Your task to perform on an android device: Clear the cart on newegg. Image 0: 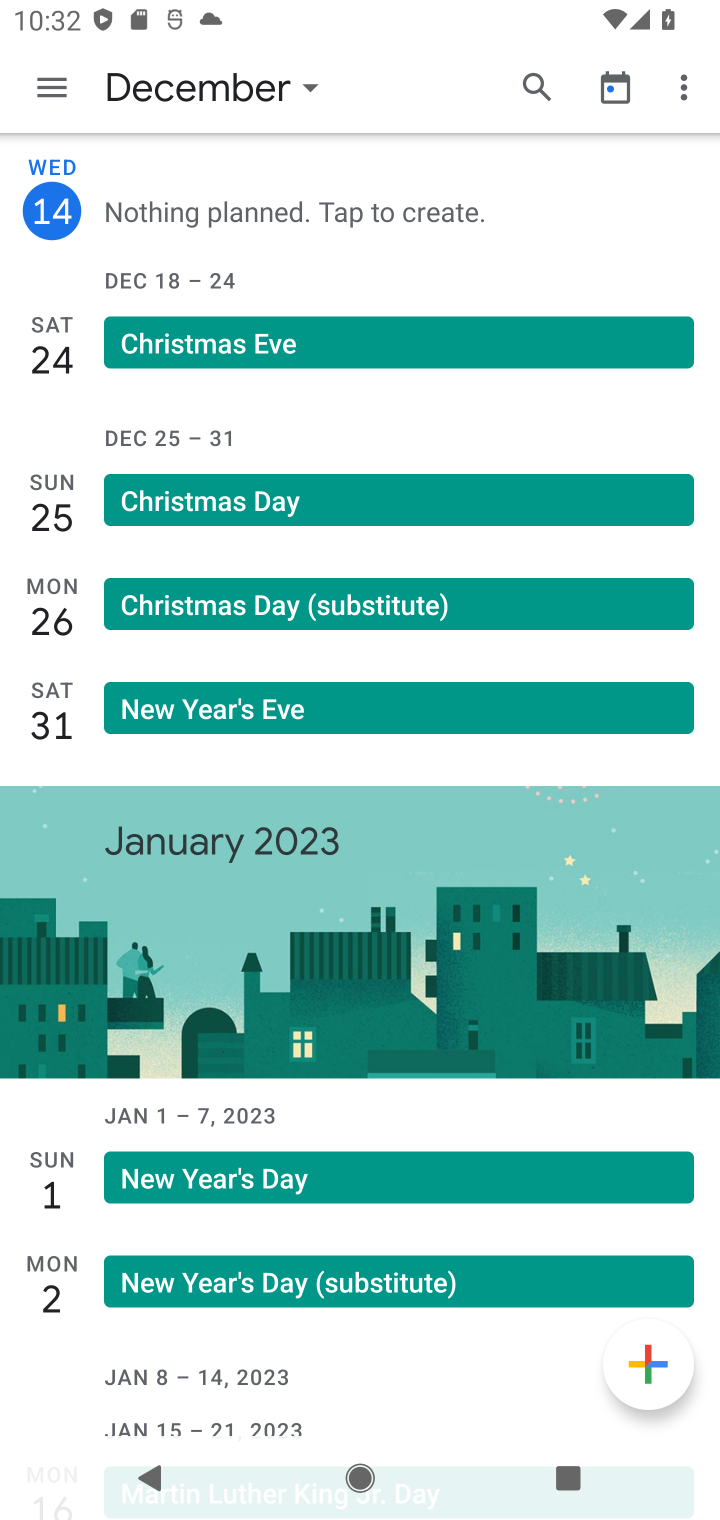
Step 0: press home button
Your task to perform on an android device: Clear the cart on newegg. Image 1: 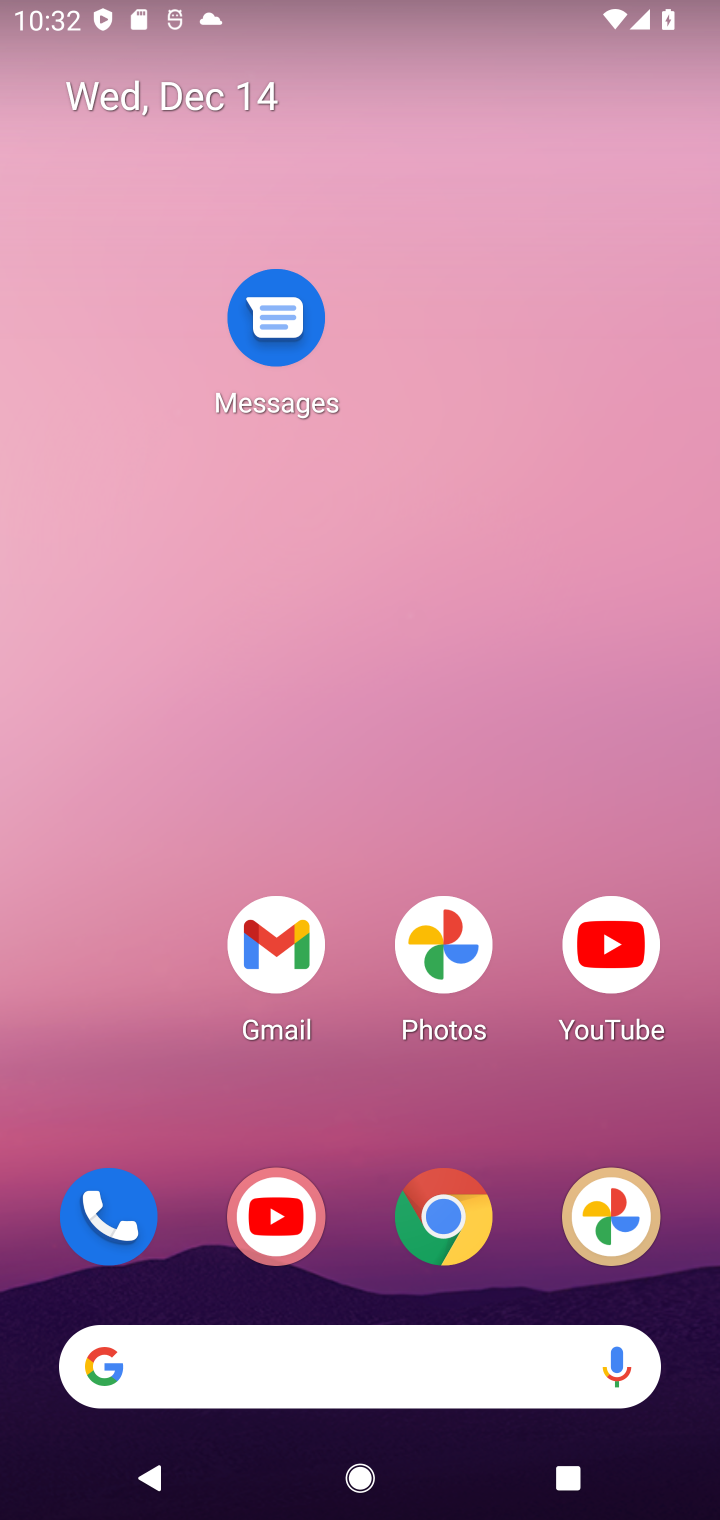
Step 1: drag from (271, 1015) to (176, 477)
Your task to perform on an android device: Clear the cart on newegg. Image 2: 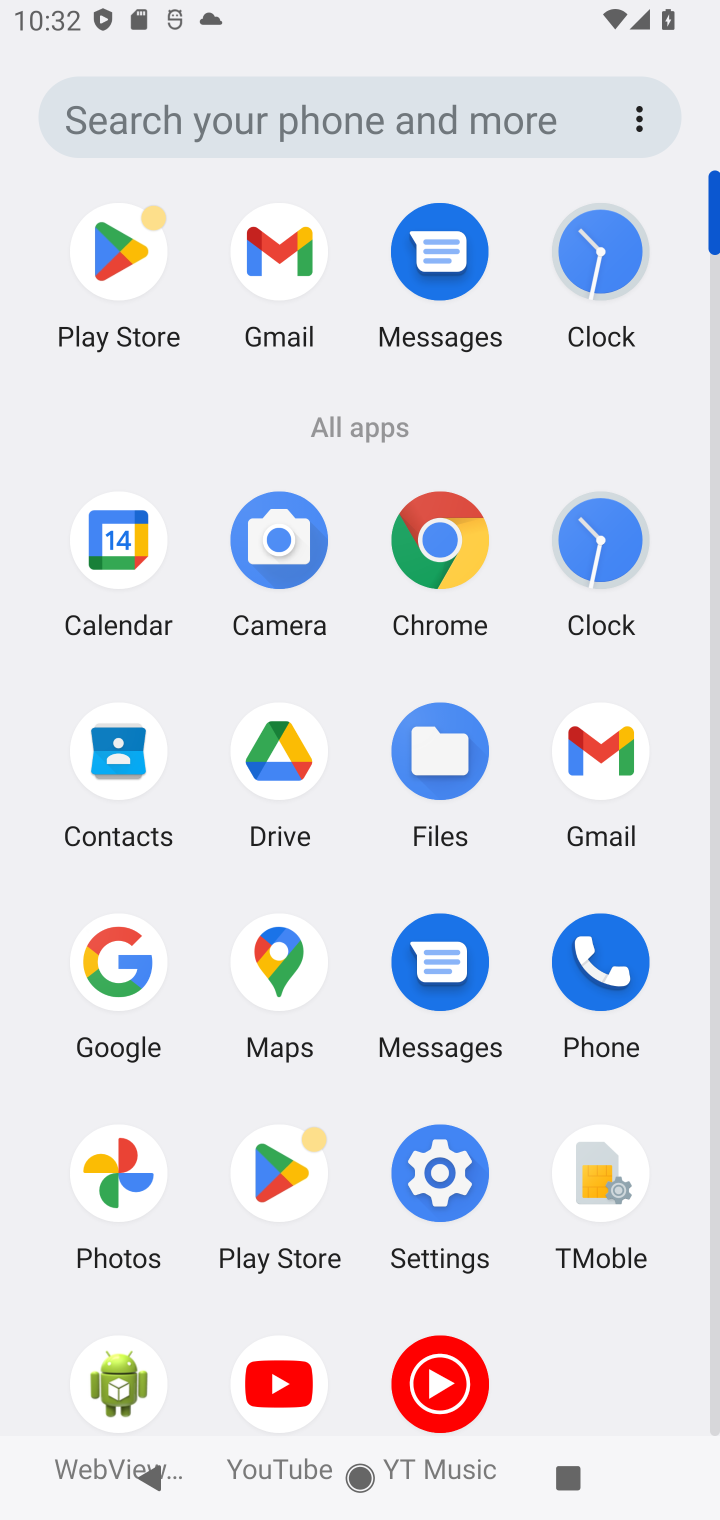
Step 2: click (108, 974)
Your task to perform on an android device: Clear the cart on newegg. Image 3: 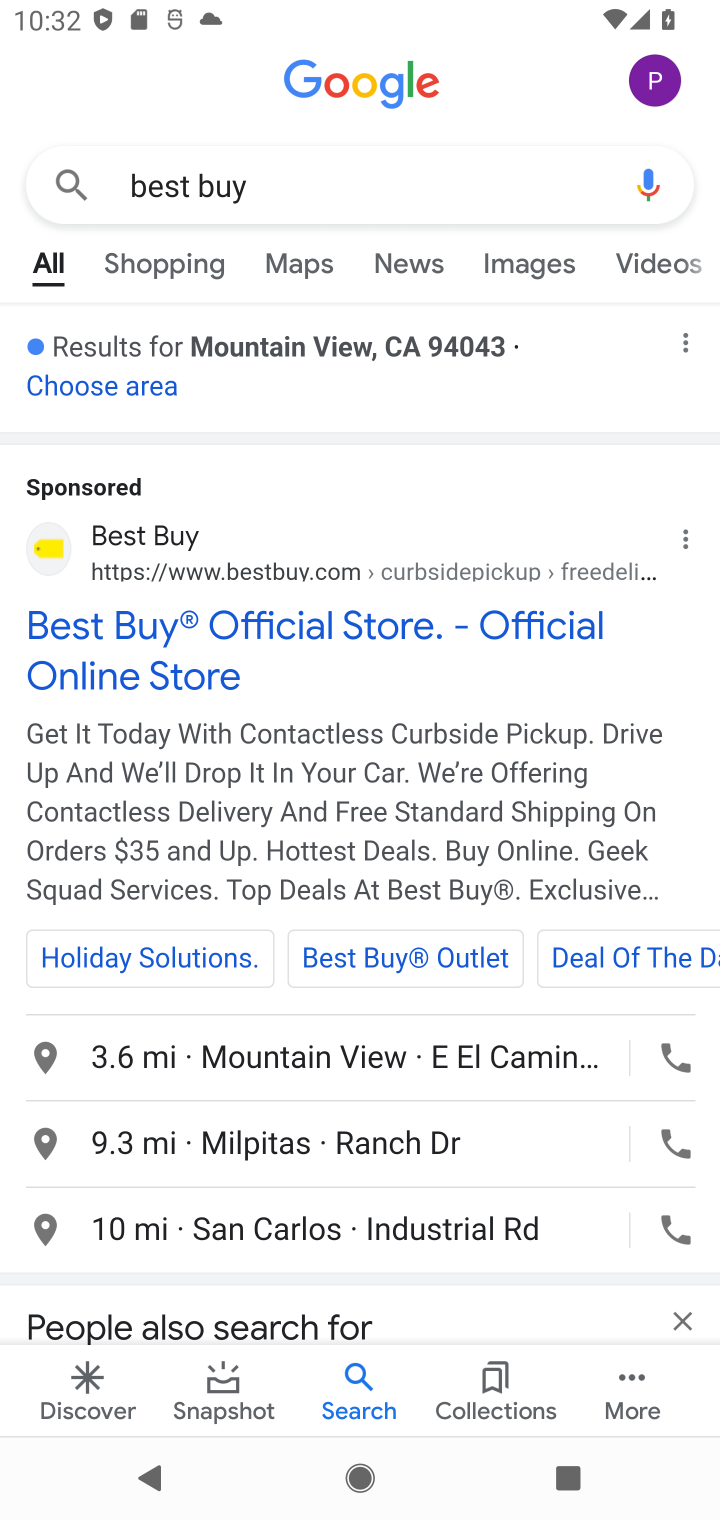
Step 3: click (182, 195)
Your task to perform on an android device: Clear the cart on newegg. Image 4: 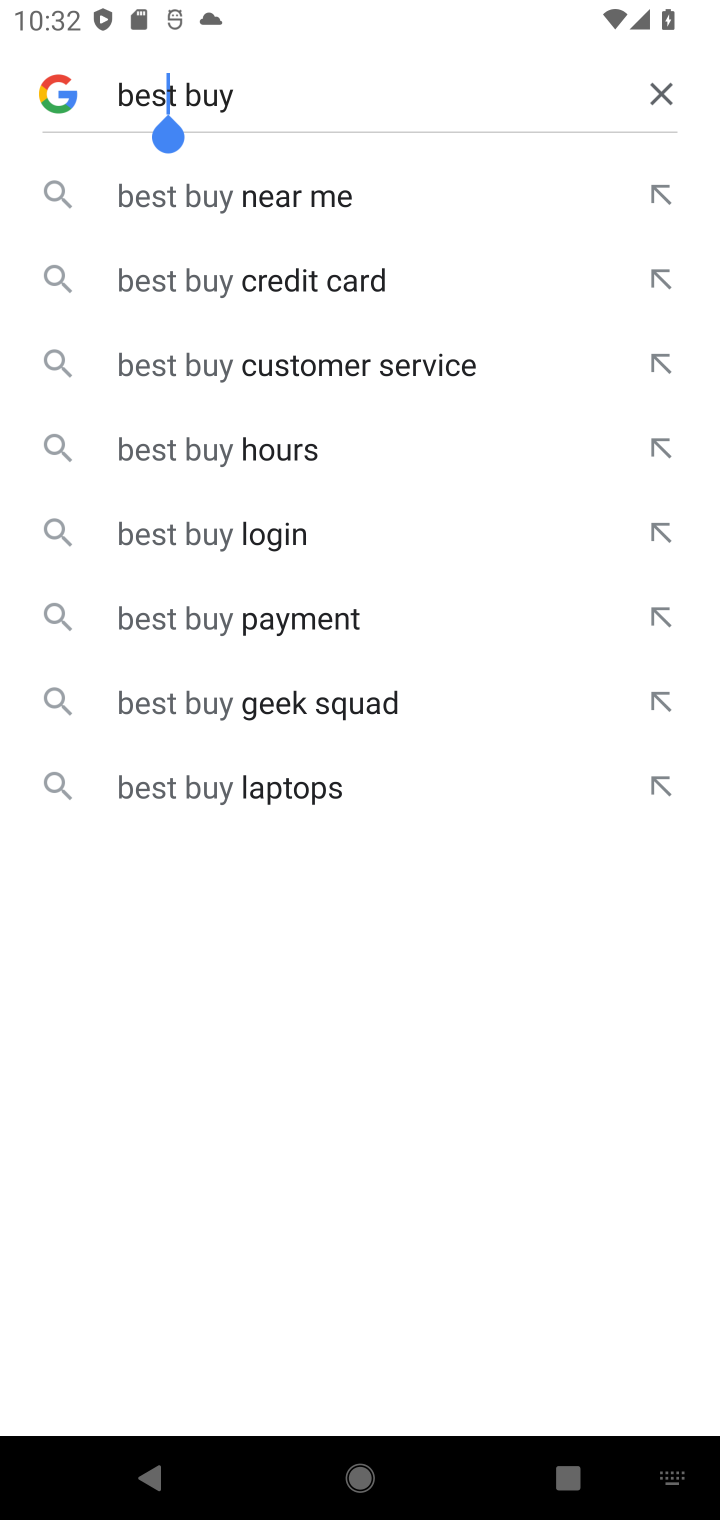
Step 4: click (652, 88)
Your task to perform on an android device: Clear the cart on newegg. Image 5: 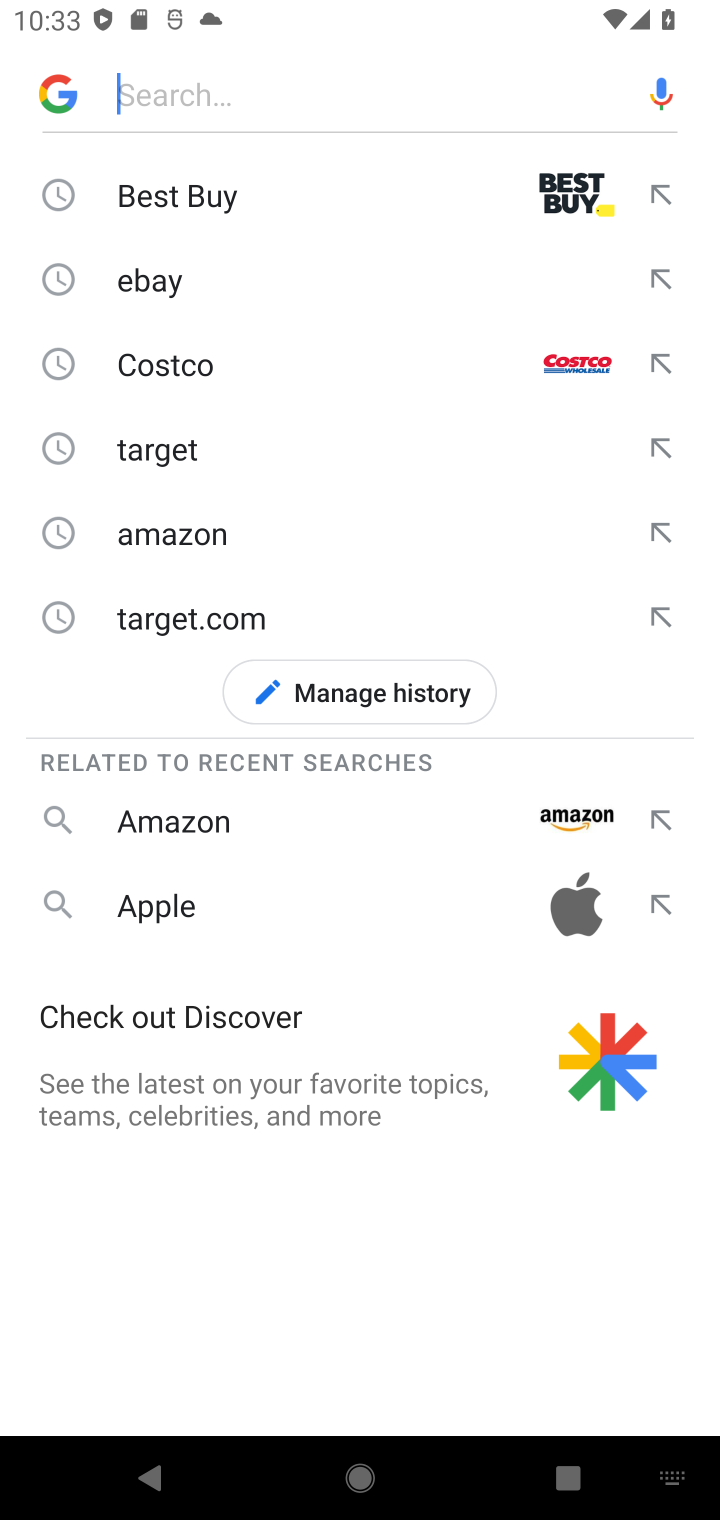
Step 5: type "newegg"
Your task to perform on an android device: Clear the cart on newegg. Image 6: 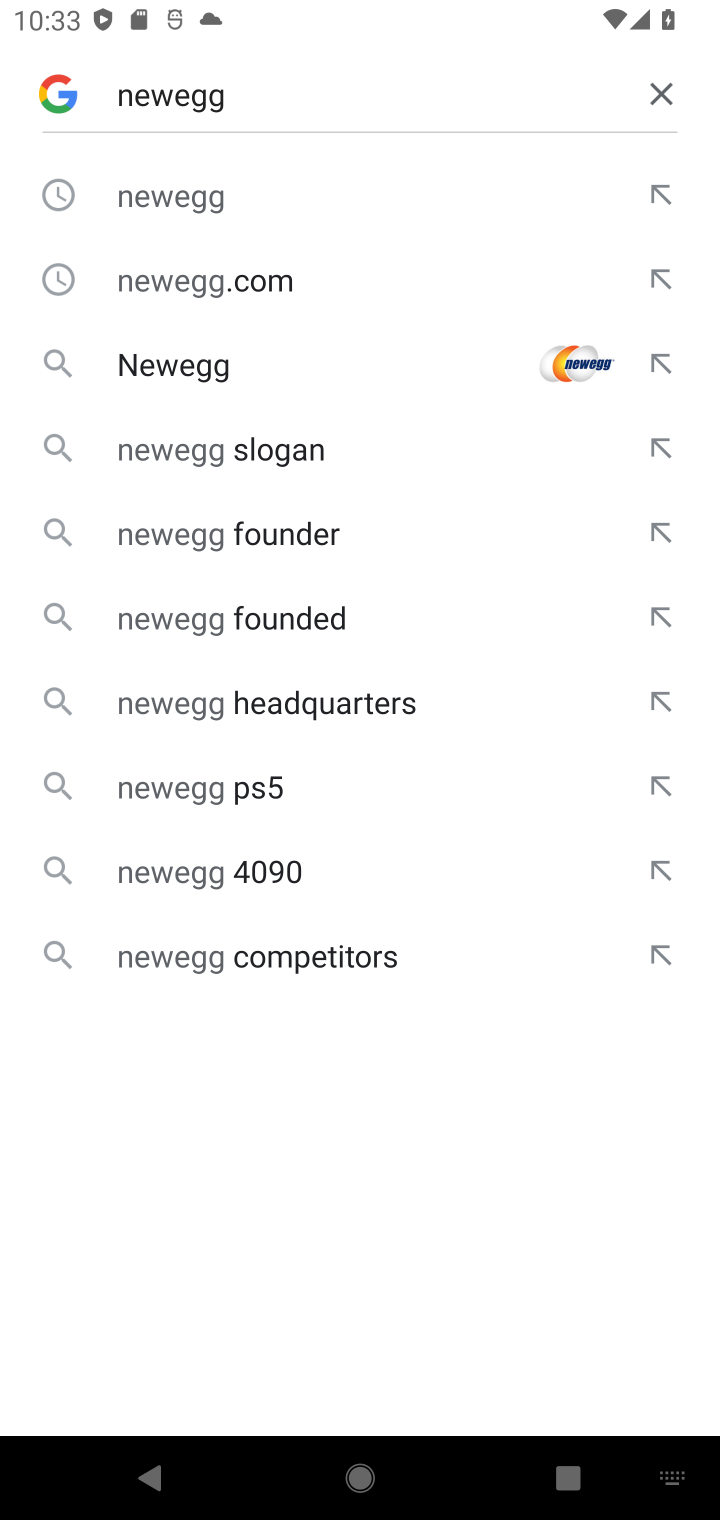
Step 6: click (157, 201)
Your task to perform on an android device: Clear the cart on newegg. Image 7: 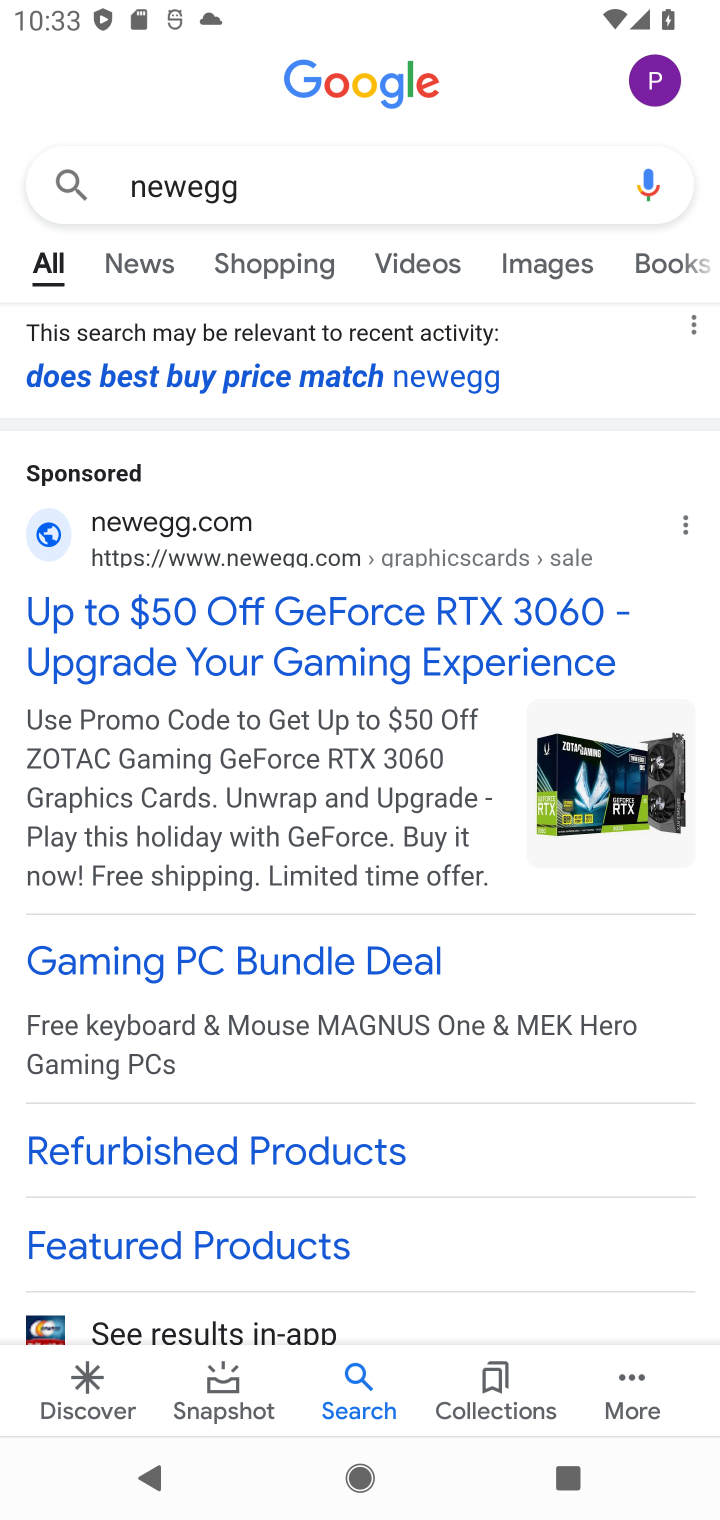
Step 7: drag from (147, 1046) to (147, 489)
Your task to perform on an android device: Clear the cart on newegg. Image 8: 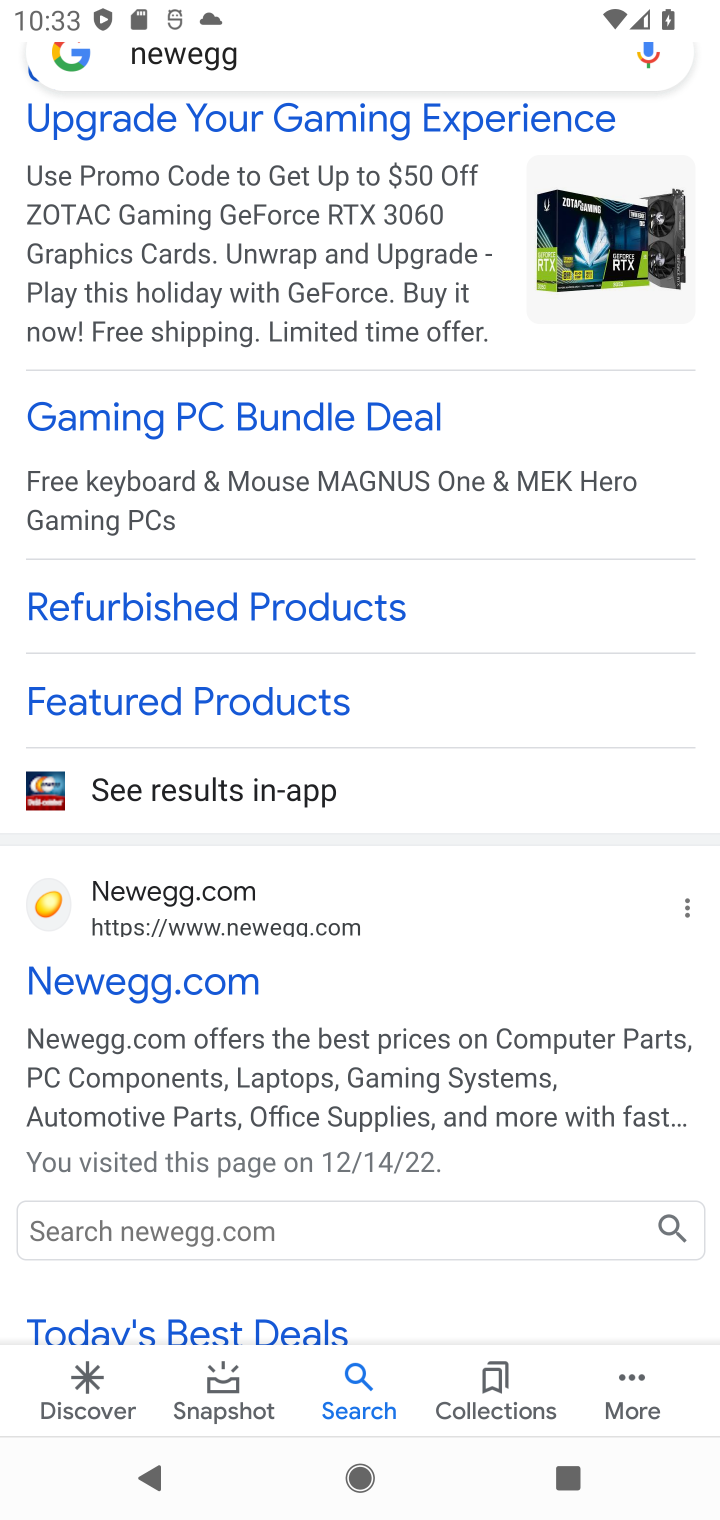
Step 8: click (112, 987)
Your task to perform on an android device: Clear the cart on newegg. Image 9: 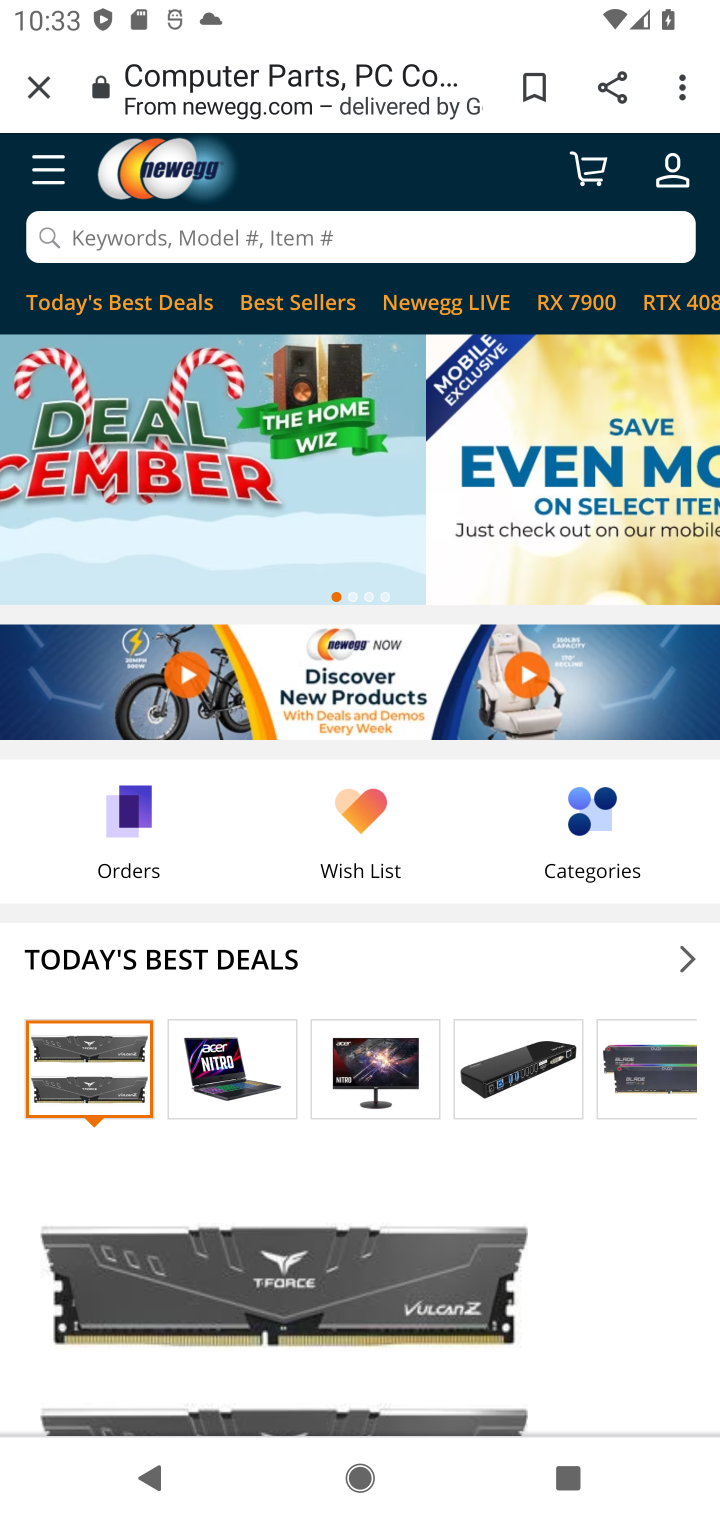
Step 9: click (608, 159)
Your task to perform on an android device: Clear the cart on newegg. Image 10: 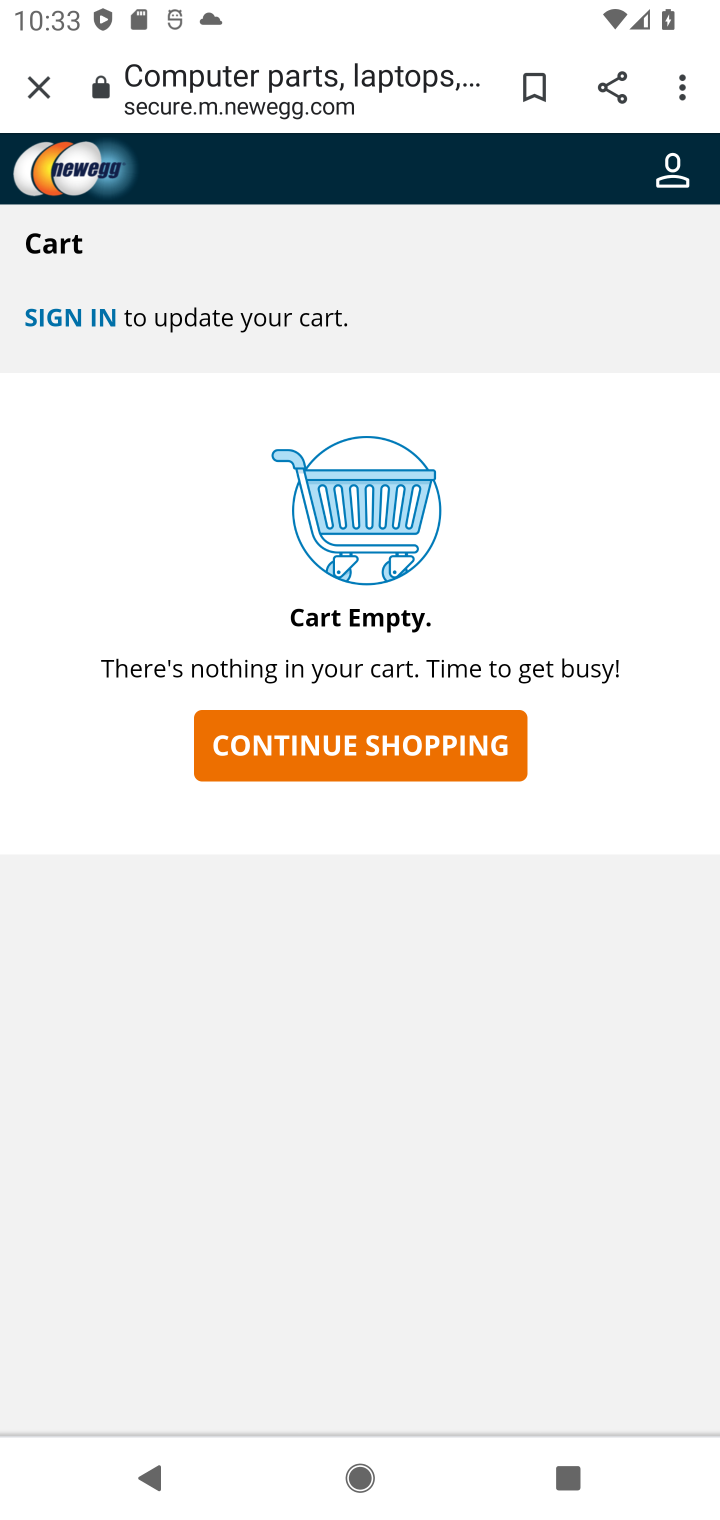
Step 10: task complete